Your task to perform on an android device: Open settings Image 0: 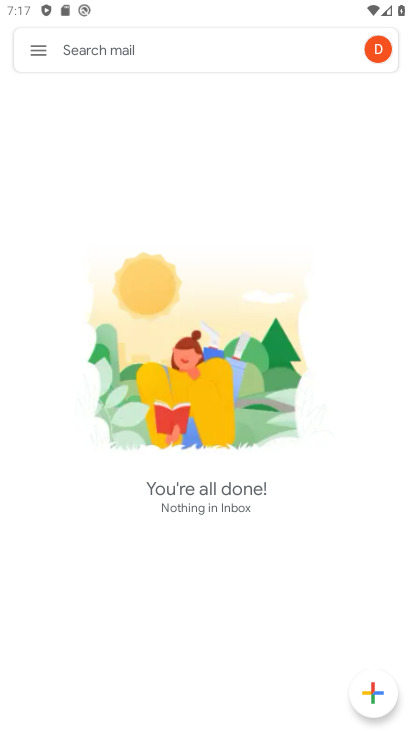
Step 0: press home button
Your task to perform on an android device: Open settings Image 1: 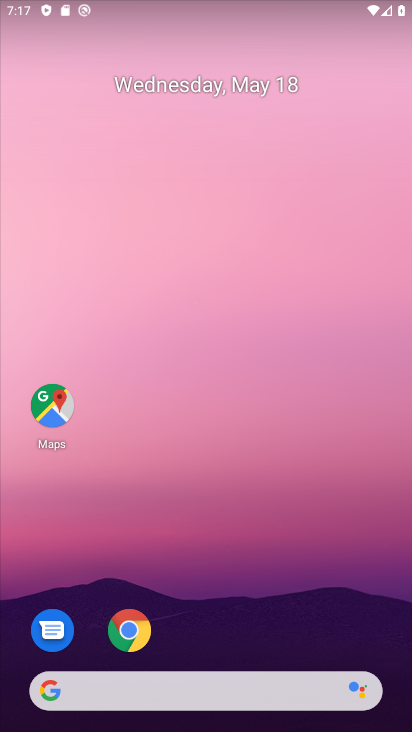
Step 1: drag from (190, 587) to (88, 98)
Your task to perform on an android device: Open settings Image 2: 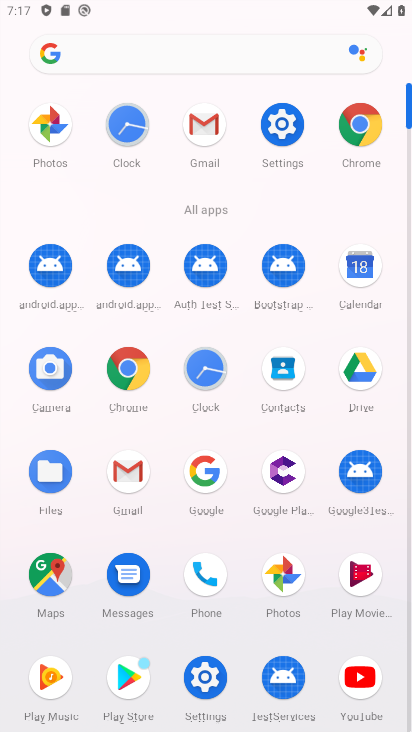
Step 2: click (290, 125)
Your task to perform on an android device: Open settings Image 3: 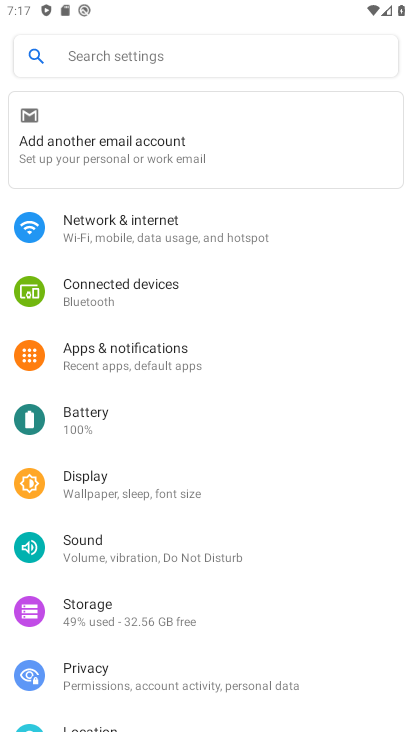
Step 3: task complete